Your task to perform on an android device: turn on javascript in the chrome app Image 0: 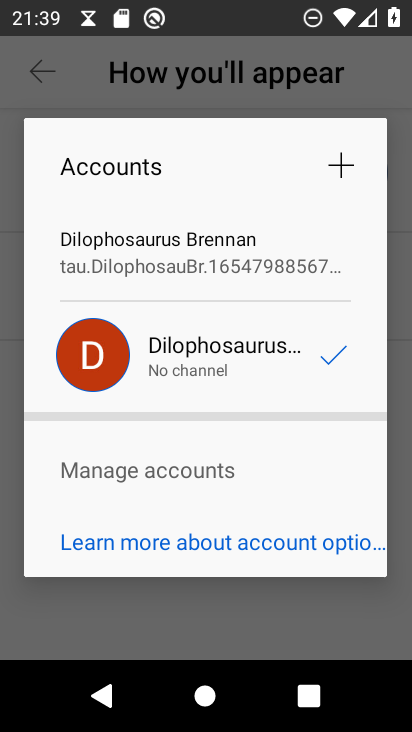
Step 0: press home button
Your task to perform on an android device: turn on javascript in the chrome app Image 1: 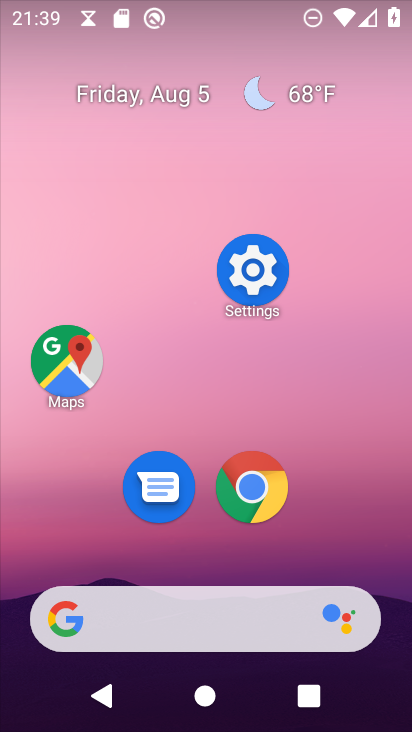
Step 1: click (253, 491)
Your task to perform on an android device: turn on javascript in the chrome app Image 2: 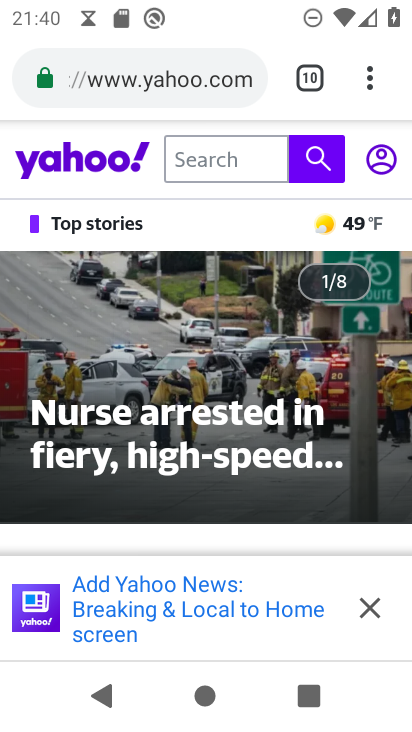
Step 2: drag from (364, 72) to (183, 532)
Your task to perform on an android device: turn on javascript in the chrome app Image 3: 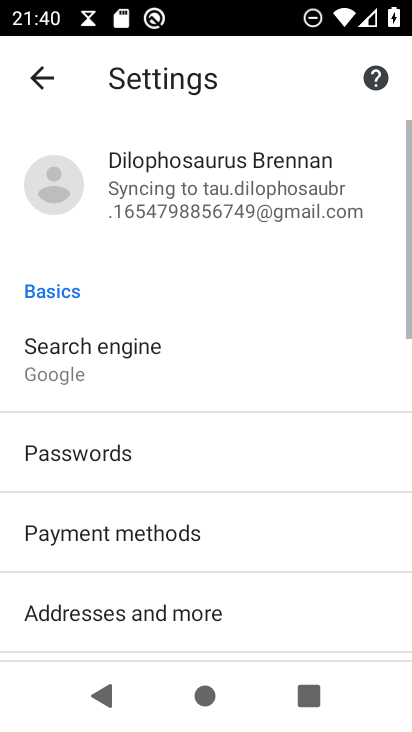
Step 3: drag from (257, 458) to (310, 71)
Your task to perform on an android device: turn on javascript in the chrome app Image 4: 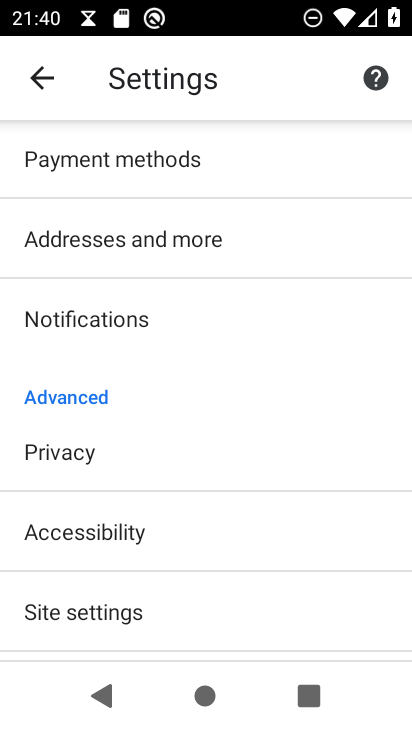
Step 4: click (124, 605)
Your task to perform on an android device: turn on javascript in the chrome app Image 5: 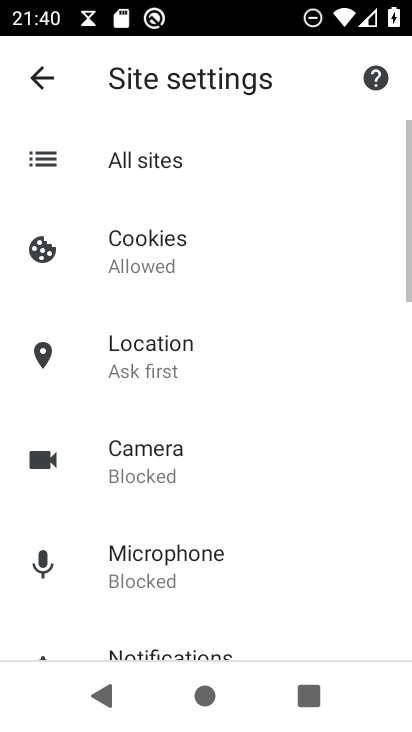
Step 5: drag from (283, 542) to (335, 73)
Your task to perform on an android device: turn on javascript in the chrome app Image 6: 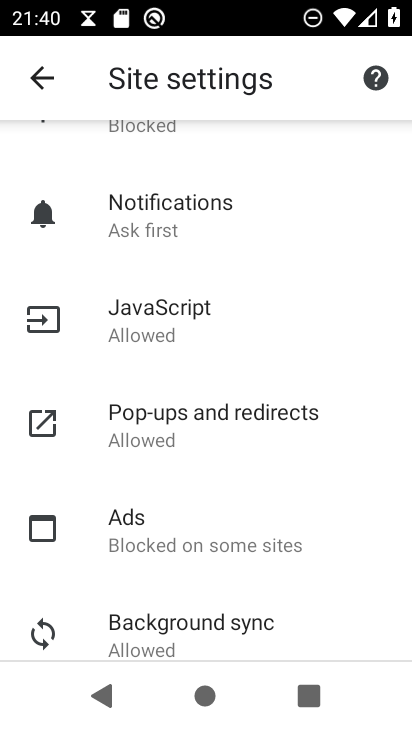
Step 6: click (153, 328)
Your task to perform on an android device: turn on javascript in the chrome app Image 7: 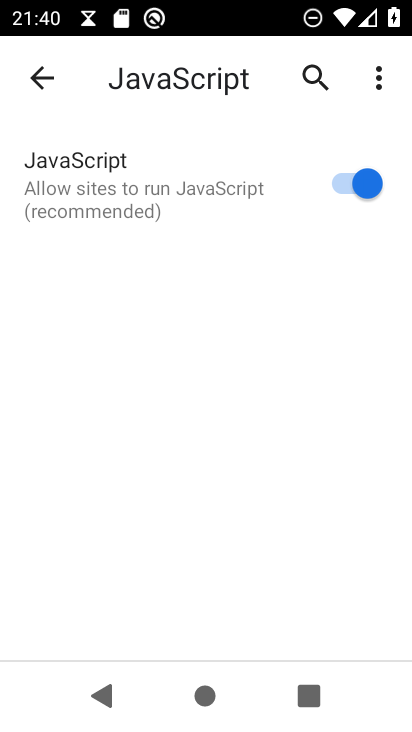
Step 7: task complete